Your task to perform on an android device: clear all cookies in the chrome app Image 0: 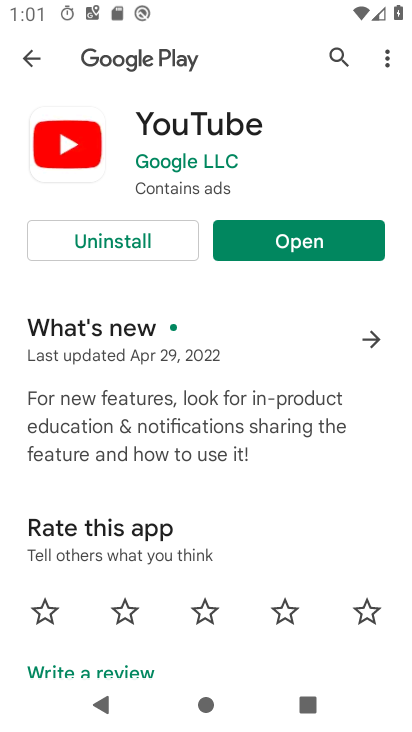
Step 0: press home button
Your task to perform on an android device: clear all cookies in the chrome app Image 1: 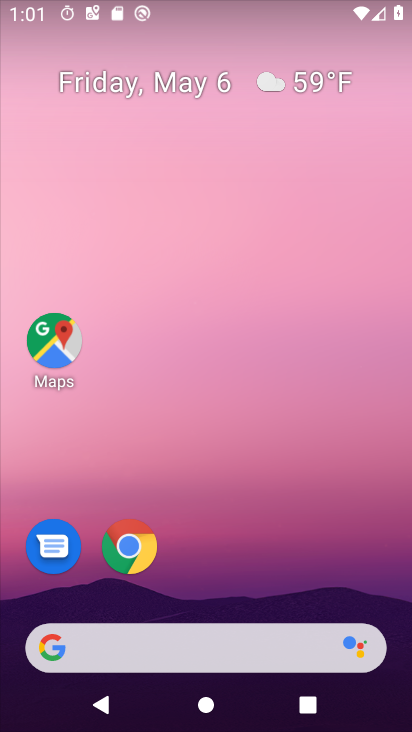
Step 1: click (126, 553)
Your task to perform on an android device: clear all cookies in the chrome app Image 2: 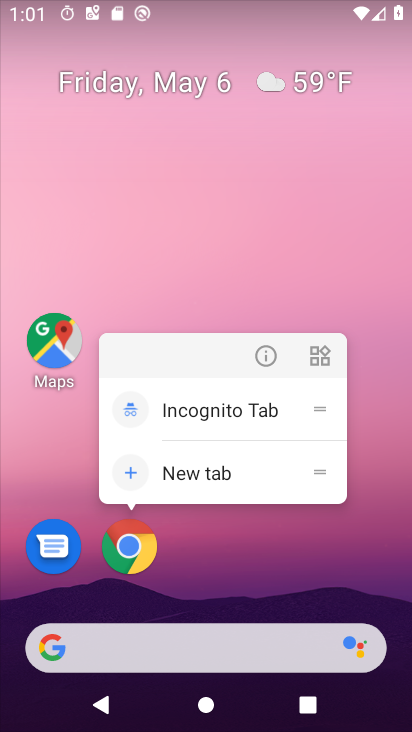
Step 2: click (125, 549)
Your task to perform on an android device: clear all cookies in the chrome app Image 3: 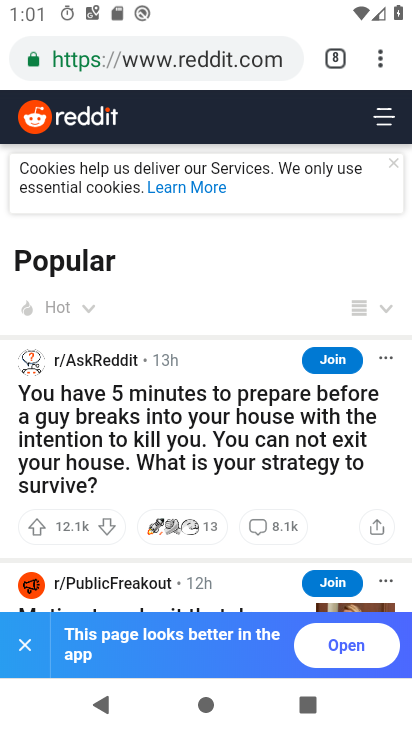
Step 3: click (384, 55)
Your task to perform on an android device: clear all cookies in the chrome app Image 4: 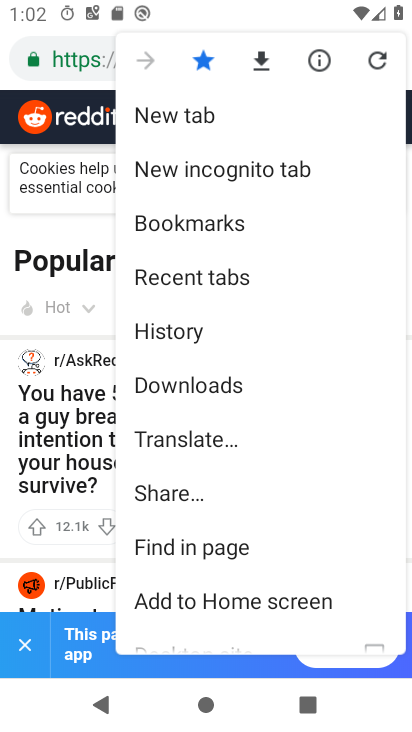
Step 4: drag from (241, 500) to (219, 257)
Your task to perform on an android device: clear all cookies in the chrome app Image 5: 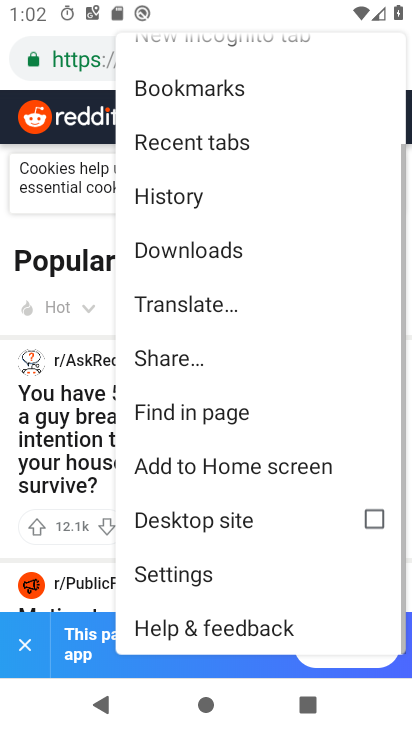
Step 5: click (212, 588)
Your task to perform on an android device: clear all cookies in the chrome app Image 6: 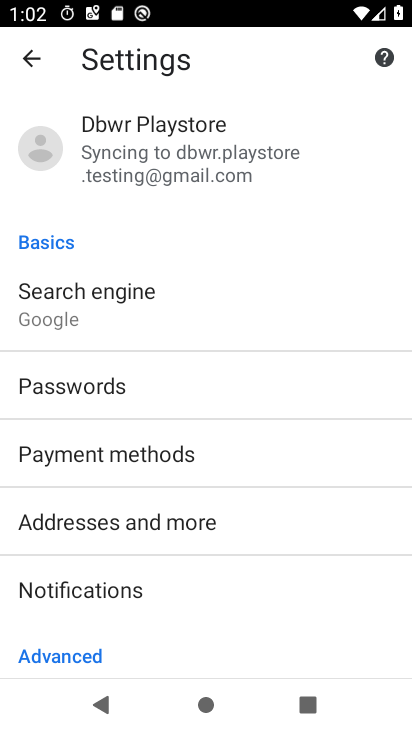
Step 6: click (29, 58)
Your task to perform on an android device: clear all cookies in the chrome app Image 7: 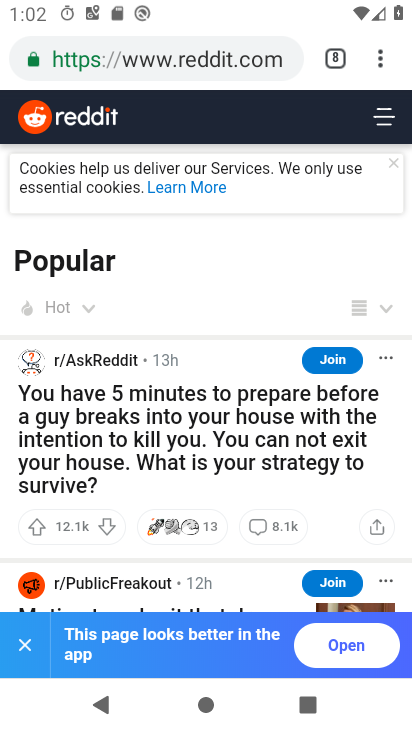
Step 7: click (389, 60)
Your task to perform on an android device: clear all cookies in the chrome app Image 8: 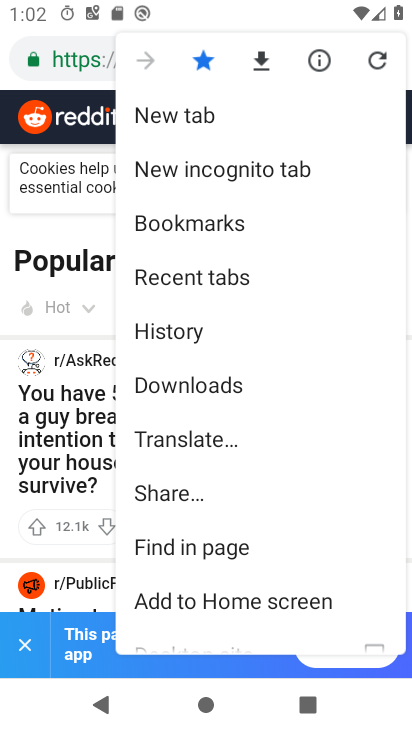
Step 8: click (192, 336)
Your task to perform on an android device: clear all cookies in the chrome app Image 9: 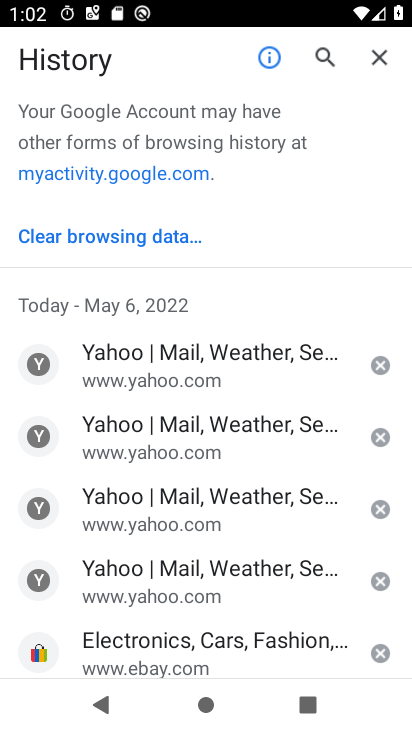
Step 9: click (130, 241)
Your task to perform on an android device: clear all cookies in the chrome app Image 10: 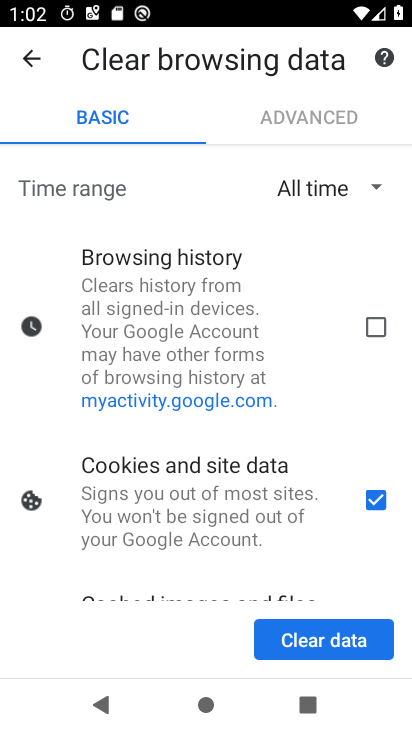
Step 10: click (343, 635)
Your task to perform on an android device: clear all cookies in the chrome app Image 11: 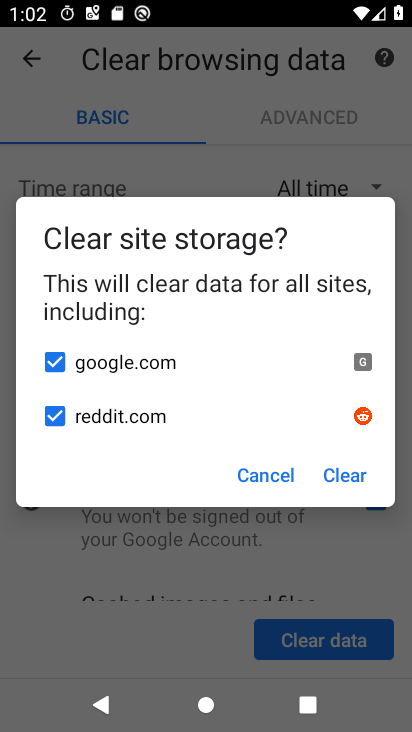
Step 11: click (356, 472)
Your task to perform on an android device: clear all cookies in the chrome app Image 12: 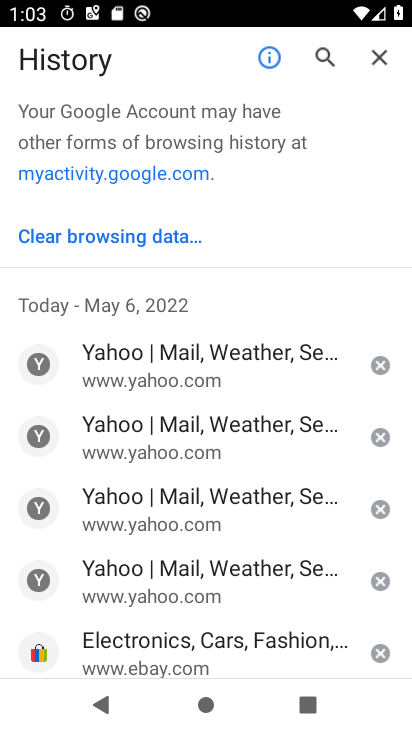
Step 12: click (174, 226)
Your task to perform on an android device: clear all cookies in the chrome app Image 13: 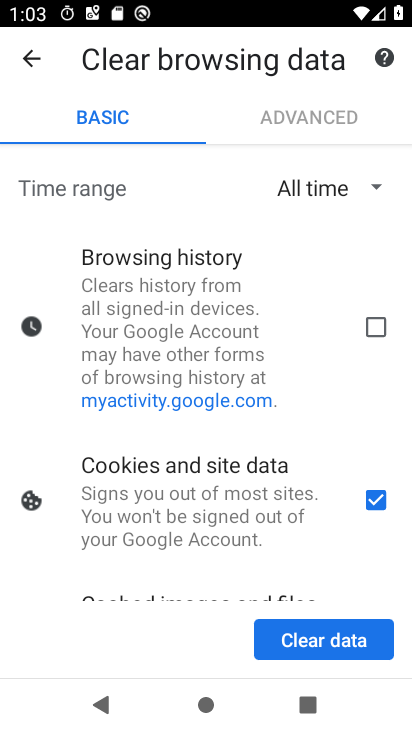
Step 13: click (337, 649)
Your task to perform on an android device: clear all cookies in the chrome app Image 14: 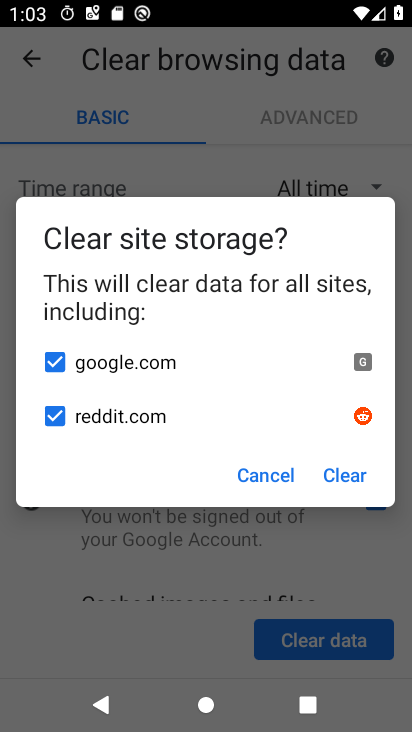
Step 14: click (346, 475)
Your task to perform on an android device: clear all cookies in the chrome app Image 15: 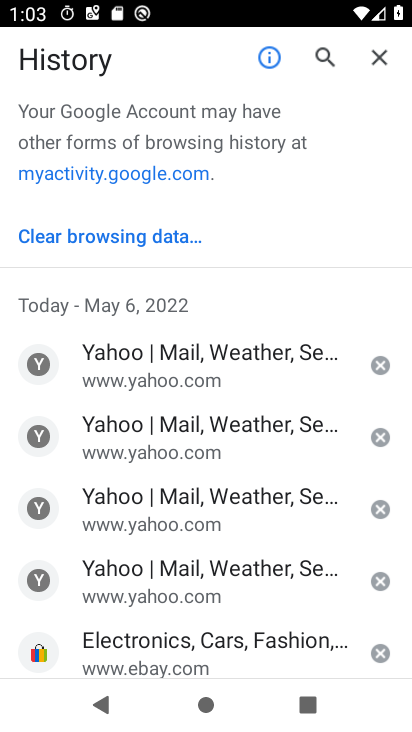
Step 15: task complete